Your task to perform on an android device: check battery use Image 0: 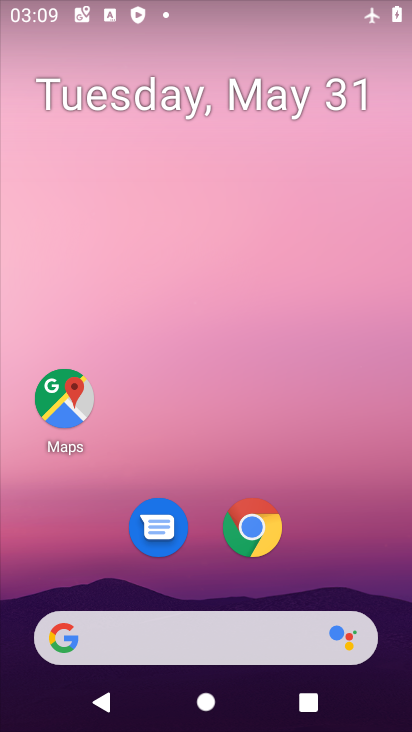
Step 0: drag from (392, 632) to (331, 80)
Your task to perform on an android device: check battery use Image 1: 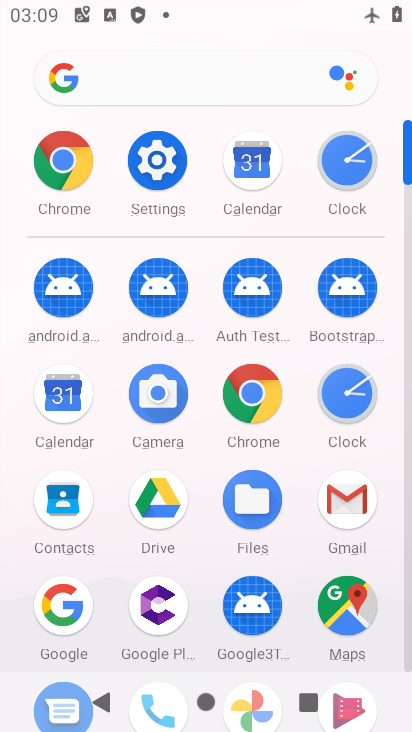
Step 1: click (410, 646)
Your task to perform on an android device: check battery use Image 2: 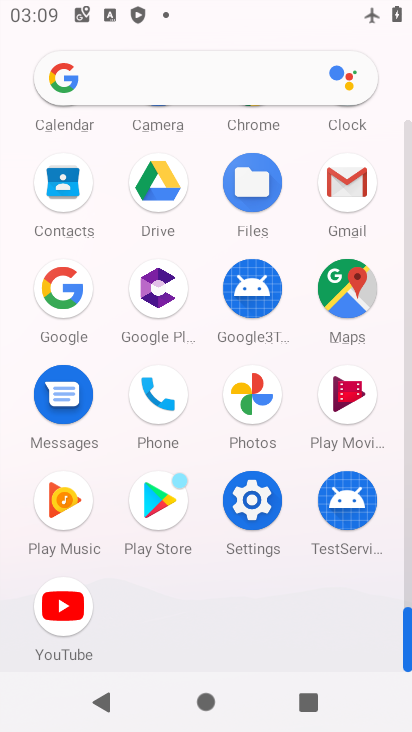
Step 2: click (252, 497)
Your task to perform on an android device: check battery use Image 3: 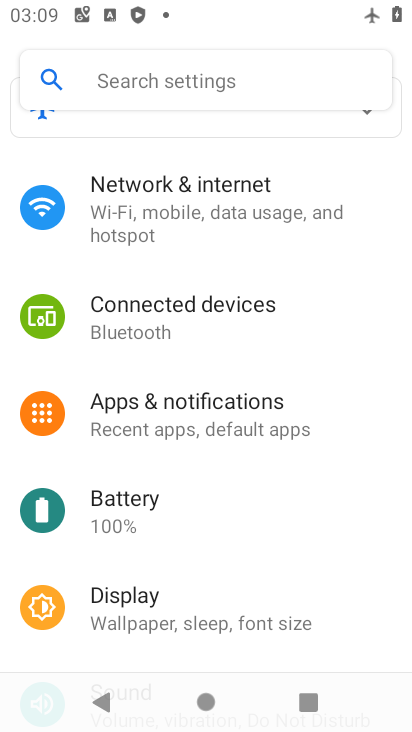
Step 3: click (126, 505)
Your task to perform on an android device: check battery use Image 4: 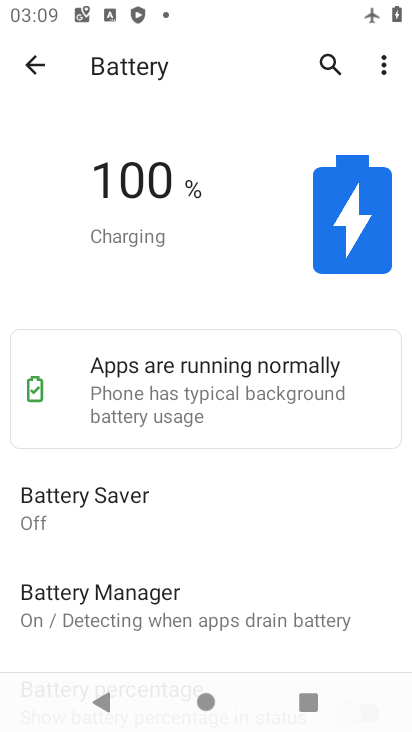
Step 4: drag from (334, 513) to (256, 34)
Your task to perform on an android device: check battery use Image 5: 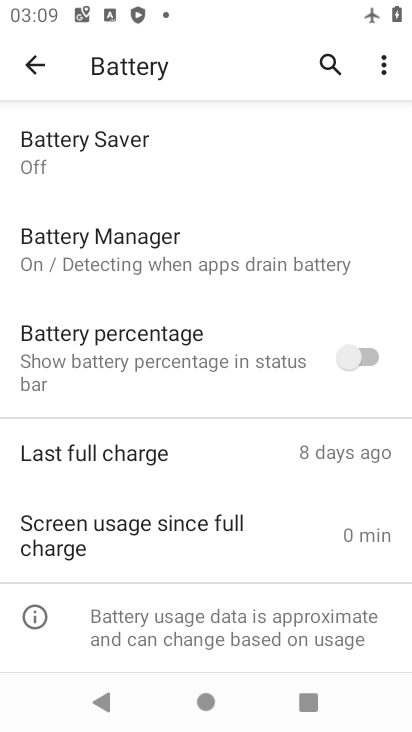
Step 5: click (385, 72)
Your task to perform on an android device: check battery use Image 6: 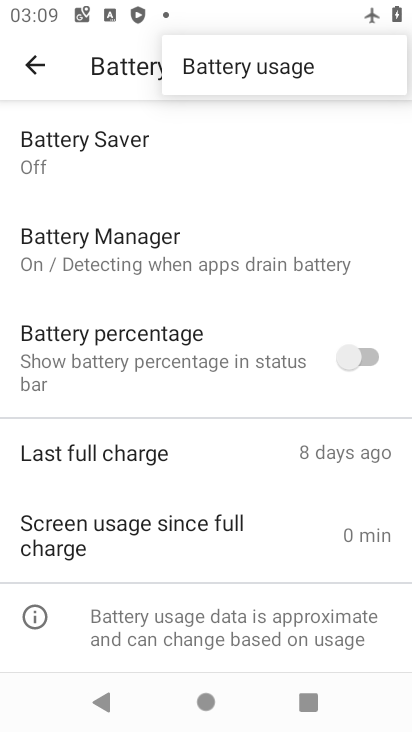
Step 6: click (237, 64)
Your task to perform on an android device: check battery use Image 7: 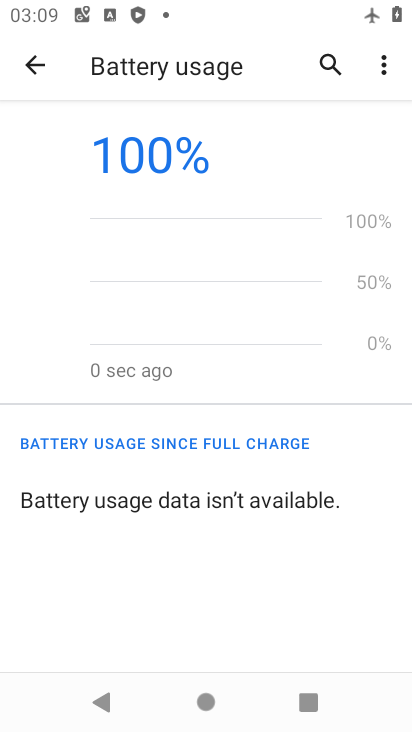
Step 7: task complete